Your task to perform on an android device: Show the shopping cart on walmart.com. Add logitech g pro to the cart on walmart.com, then select checkout. Image 0: 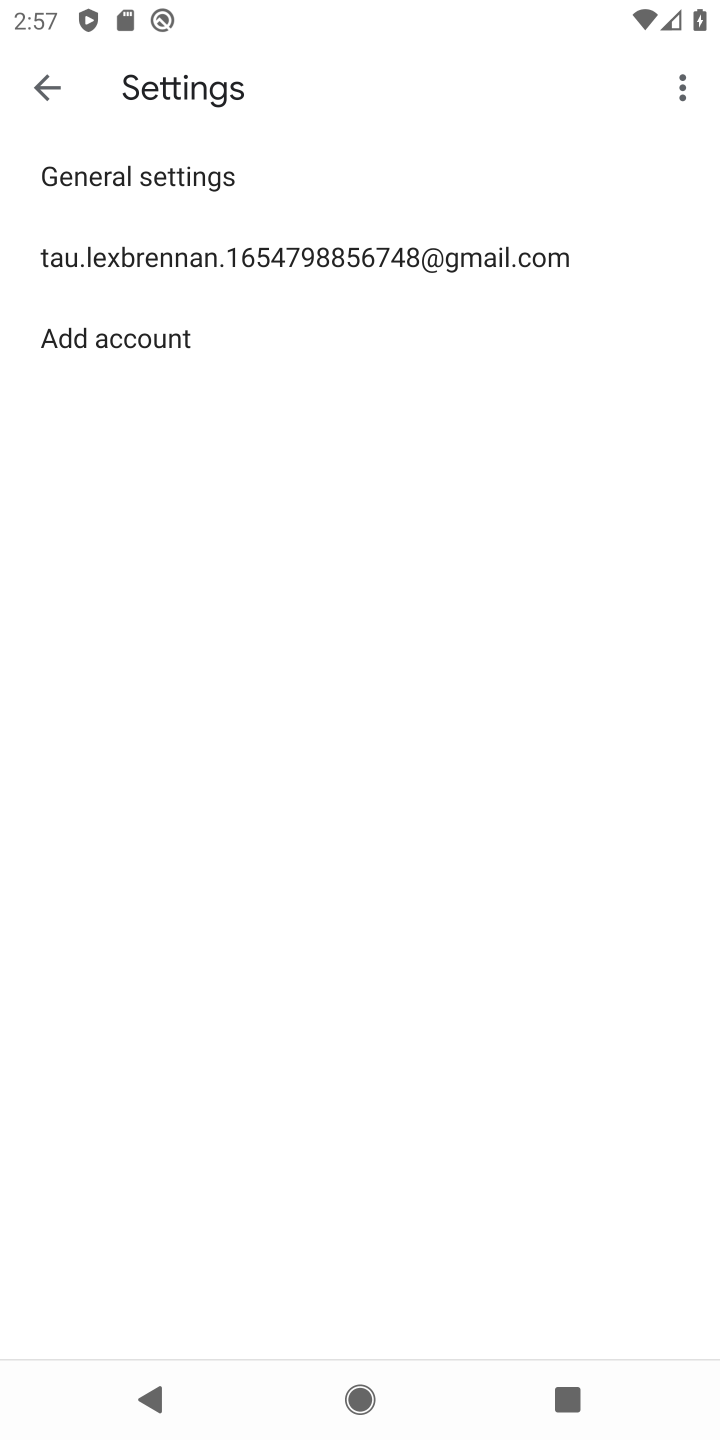
Step 0: press home button
Your task to perform on an android device: Show the shopping cart on walmart.com. Add logitech g pro to the cart on walmart.com, then select checkout. Image 1: 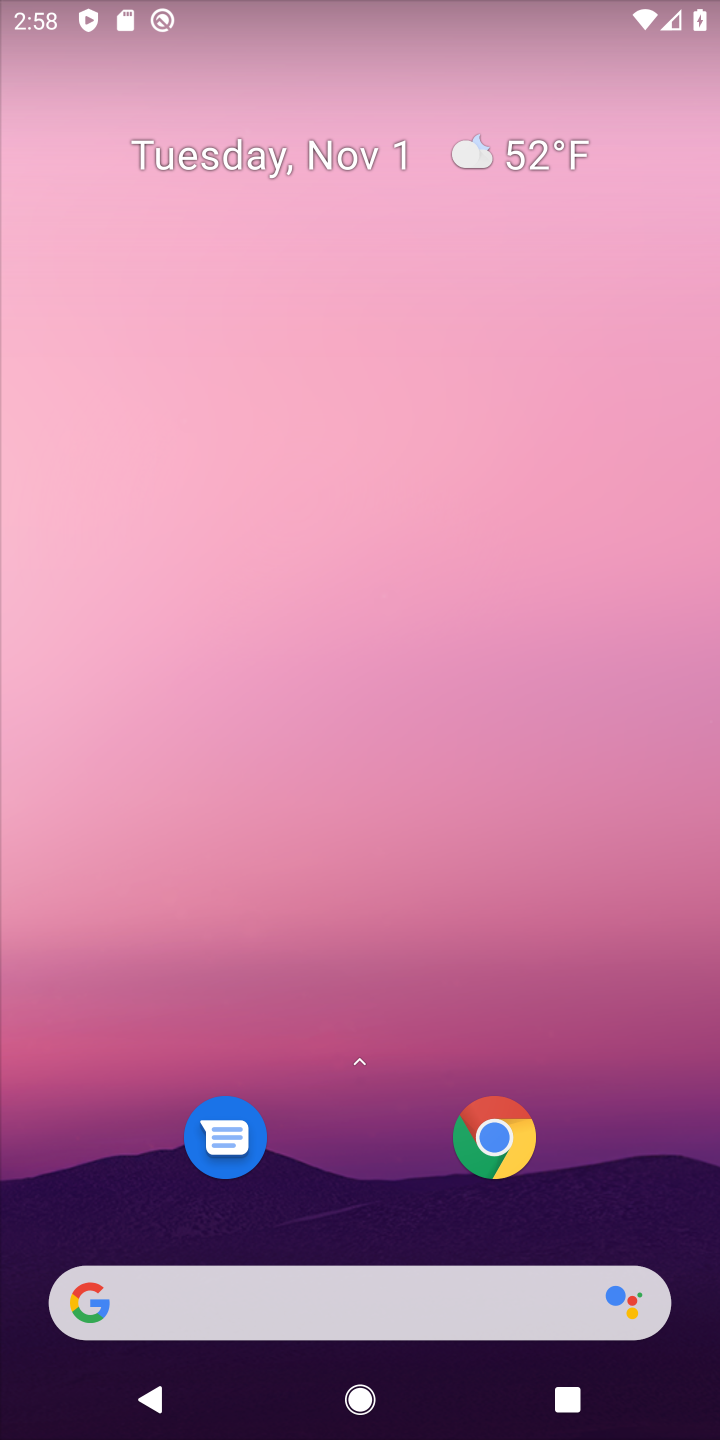
Step 1: click (516, 1297)
Your task to perform on an android device: Show the shopping cart on walmart.com. Add logitech g pro to the cart on walmart.com, then select checkout. Image 2: 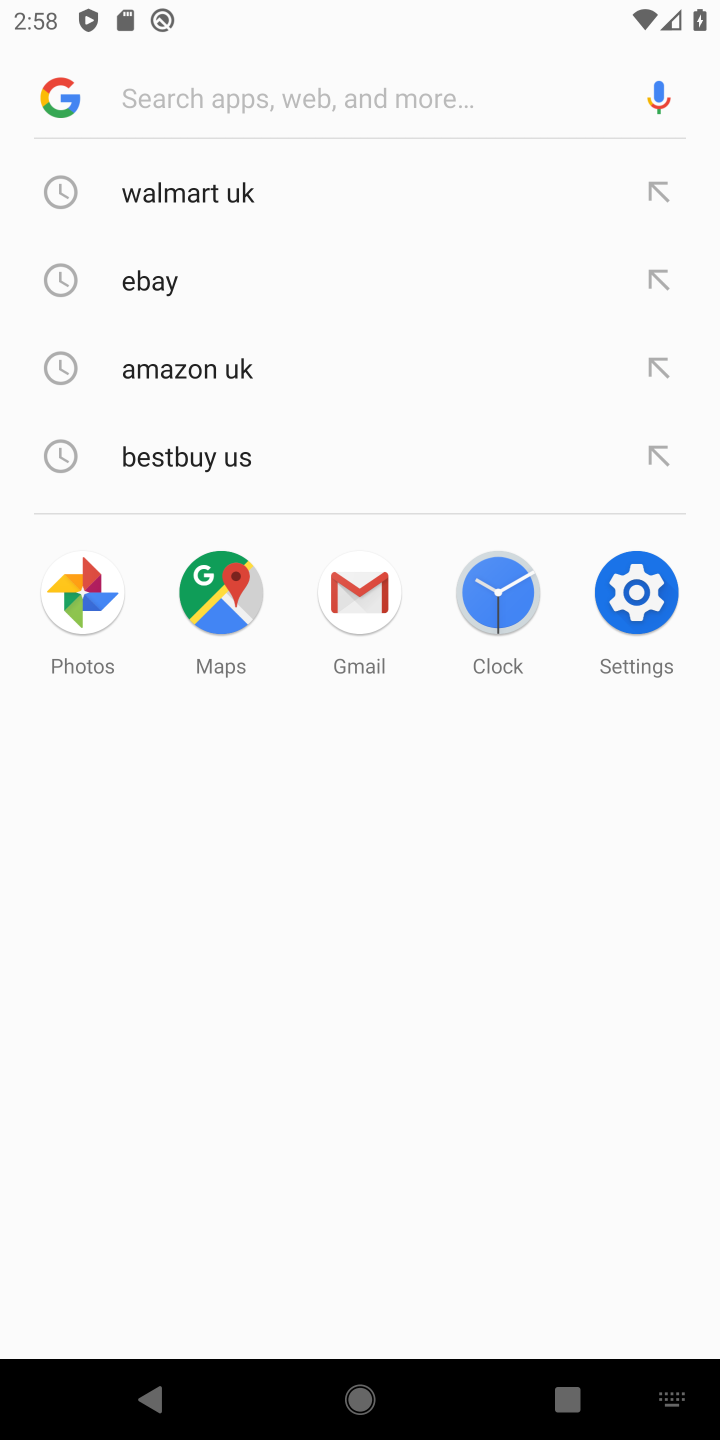
Step 2: click (343, 205)
Your task to perform on an android device: Show the shopping cart on walmart.com. Add logitech g pro to the cart on walmart.com, then select checkout. Image 3: 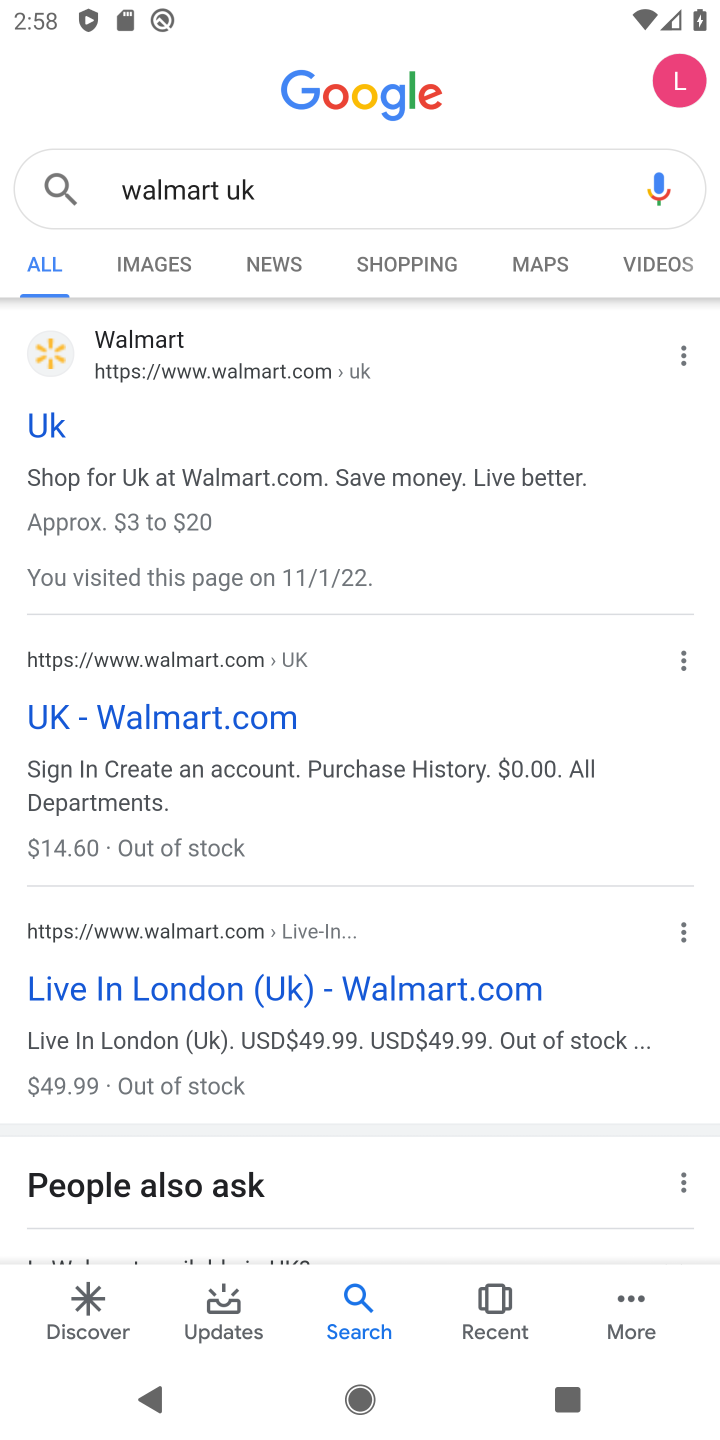
Step 3: click (58, 418)
Your task to perform on an android device: Show the shopping cart on walmart.com. Add logitech g pro to the cart on walmart.com, then select checkout. Image 4: 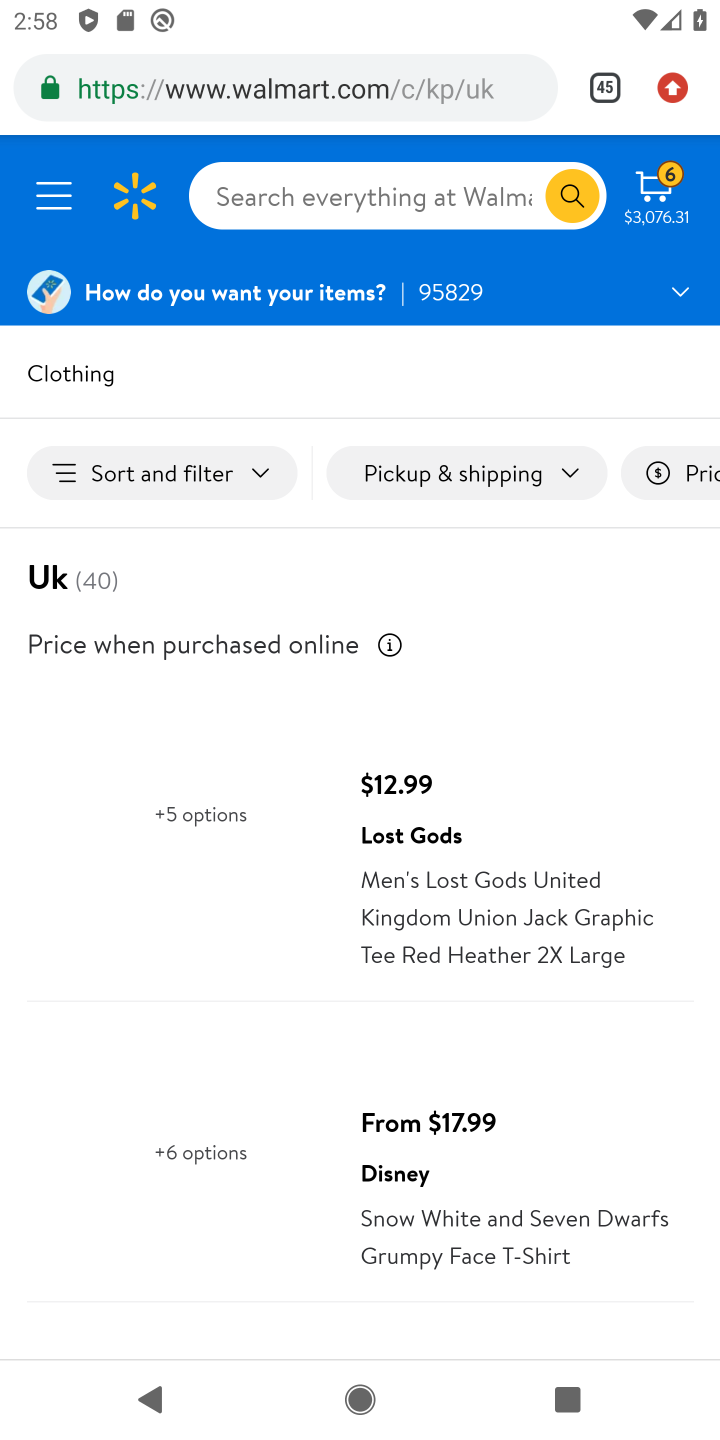
Step 4: click (316, 212)
Your task to perform on an android device: Show the shopping cart on walmart.com. Add logitech g pro to the cart on walmart.com, then select checkout. Image 5: 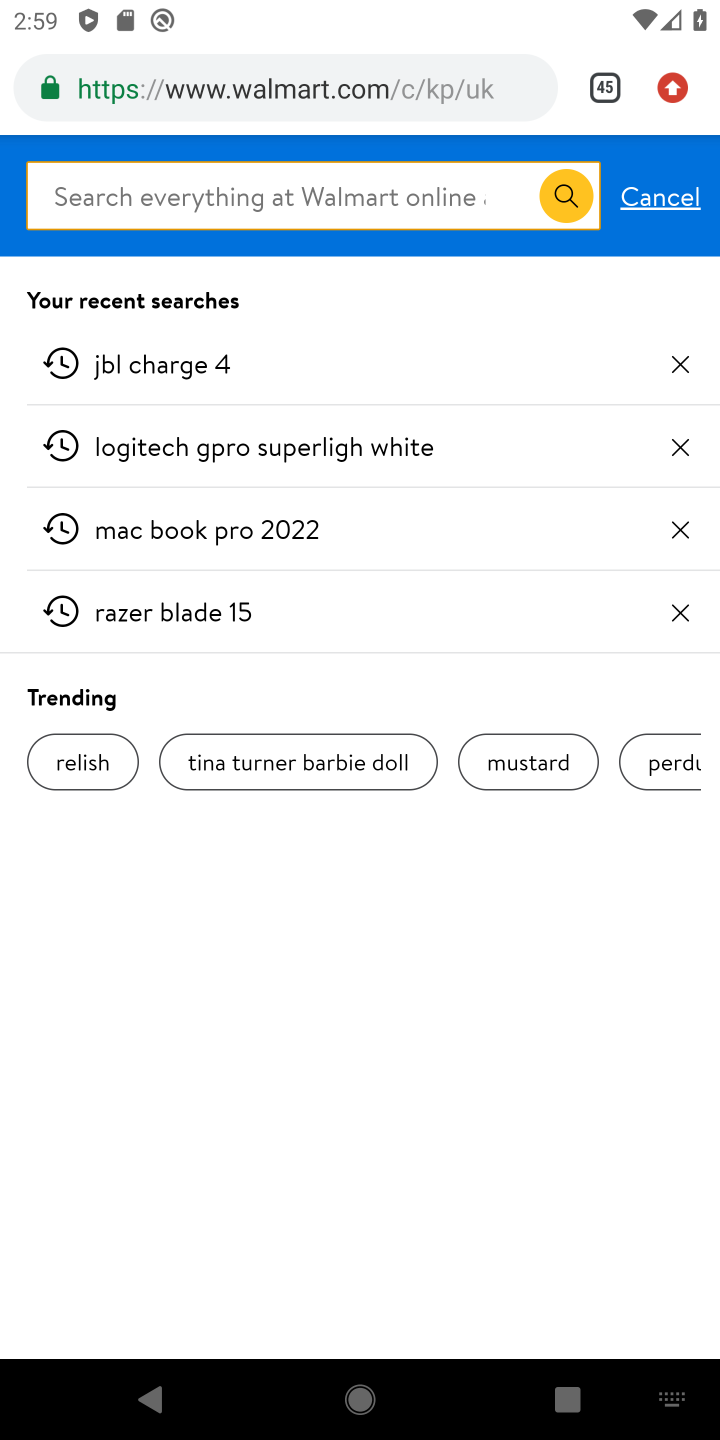
Step 5: type "logitech gpro"
Your task to perform on an android device: Show the shopping cart on walmart.com. Add logitech g pro to the cart on walmart.com, then select checkout. Image 6: 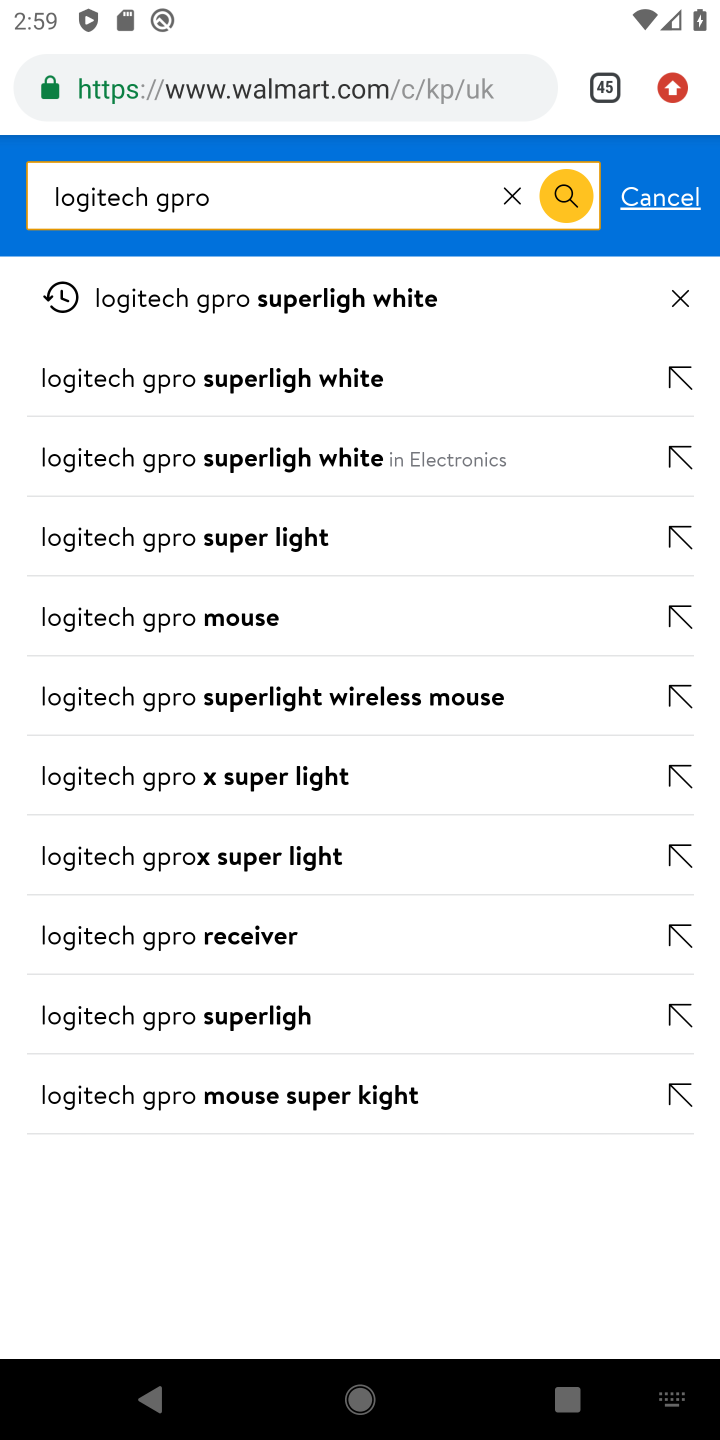
Step 6: click (298, 612)
Your task to perform on an android device: Show the shopping cart on walmart.com. Add logitech g pro to the cart on walmart.com, then select checkout. Image 7: 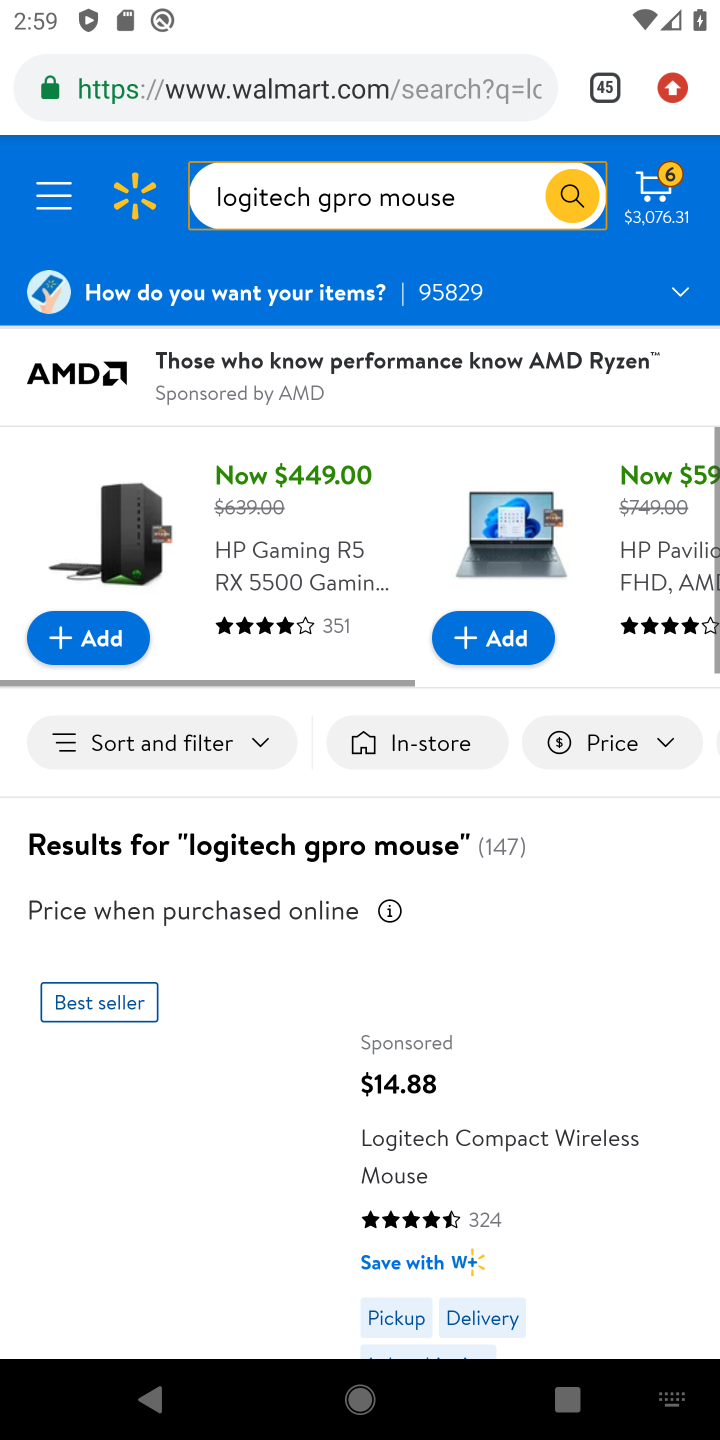
Step 7: click (508, 1076)
Your task to perform on an android device: Show the shopping cart on walmart.com. Add logitech g pro to the cart on walmart.com, then select checkout. Image 8: 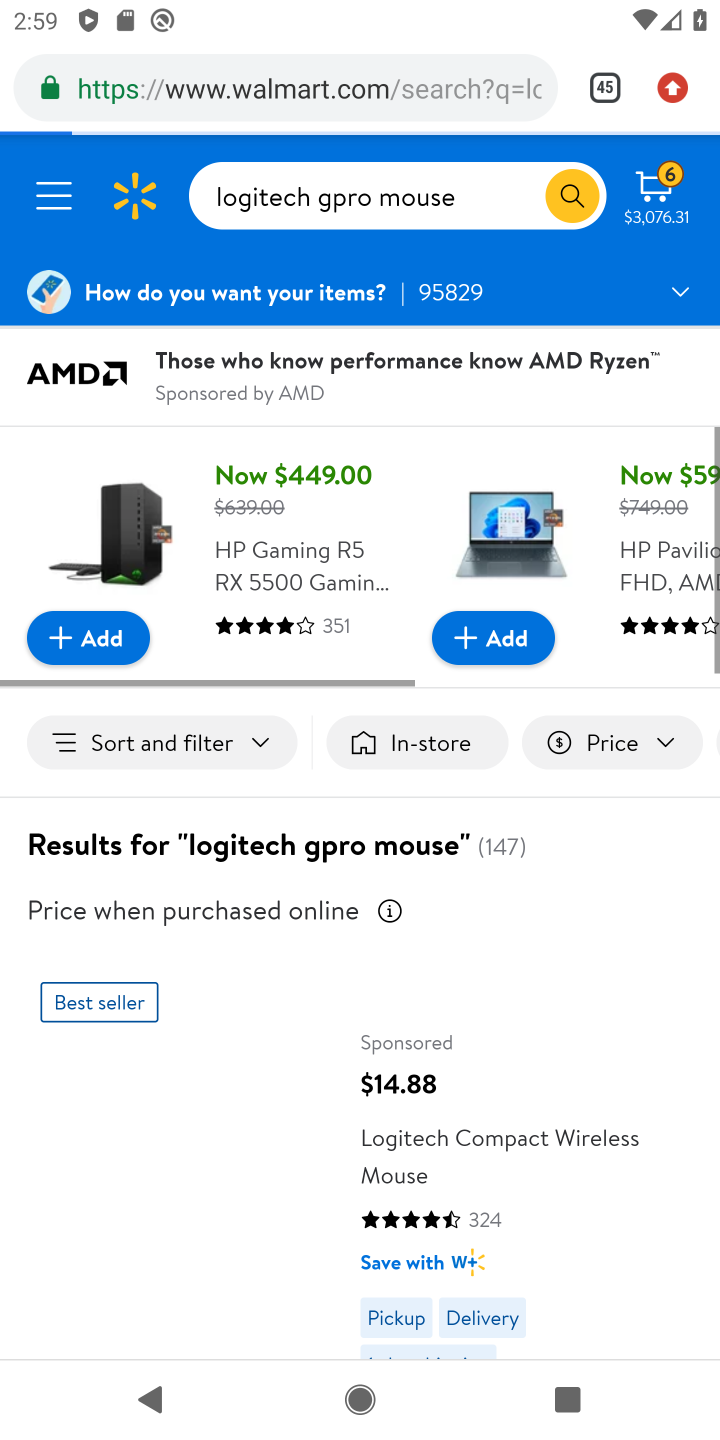
Step 8: drag from (506, 1064) to (582, 663)
Your task to perform on an android device: Show the shopping cart on walmart.com. Add logitech g pro to the cart on walmart.com, then select checkout. Image 9: 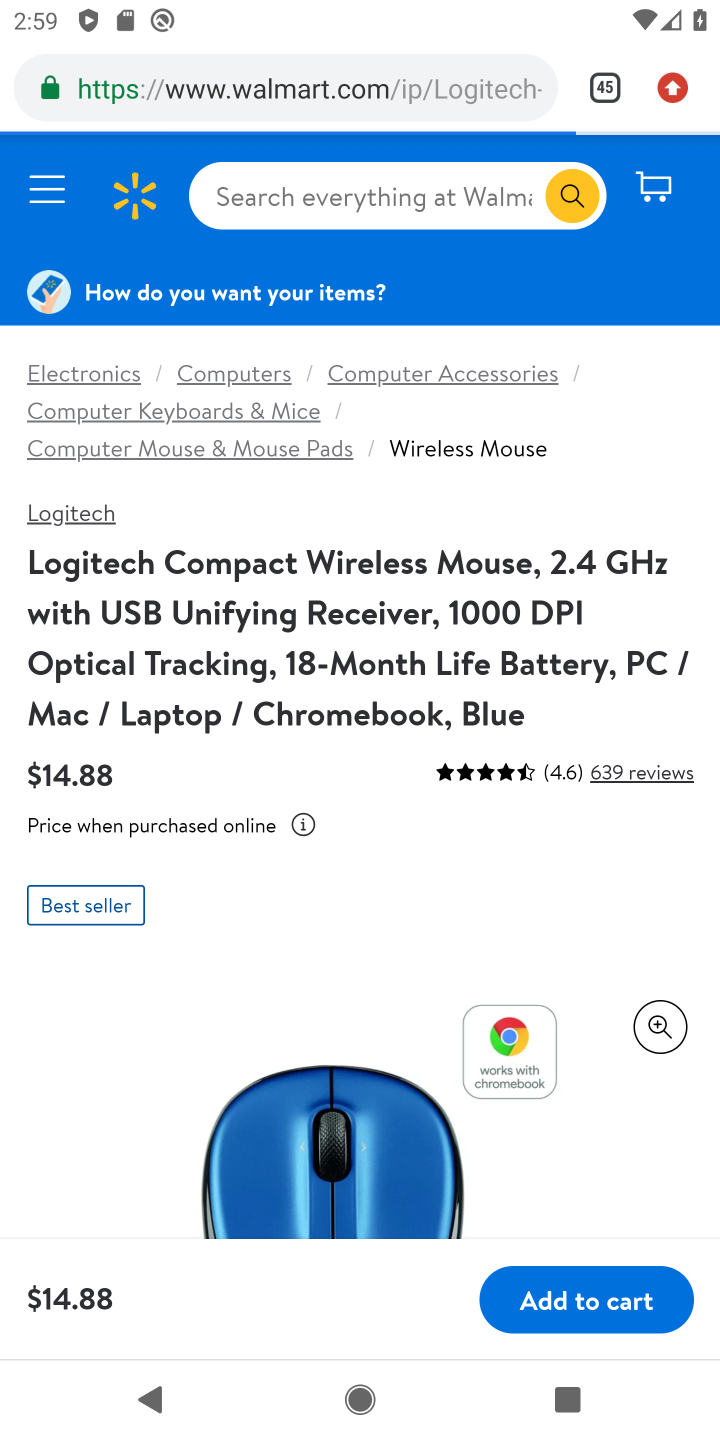
Step 9: click (587, 1317)
Your task to perform on an android device: Show the shopping cart on walmart.com. Add logitech g pro to the cart on walmart.com, then select checkout. Image 10: 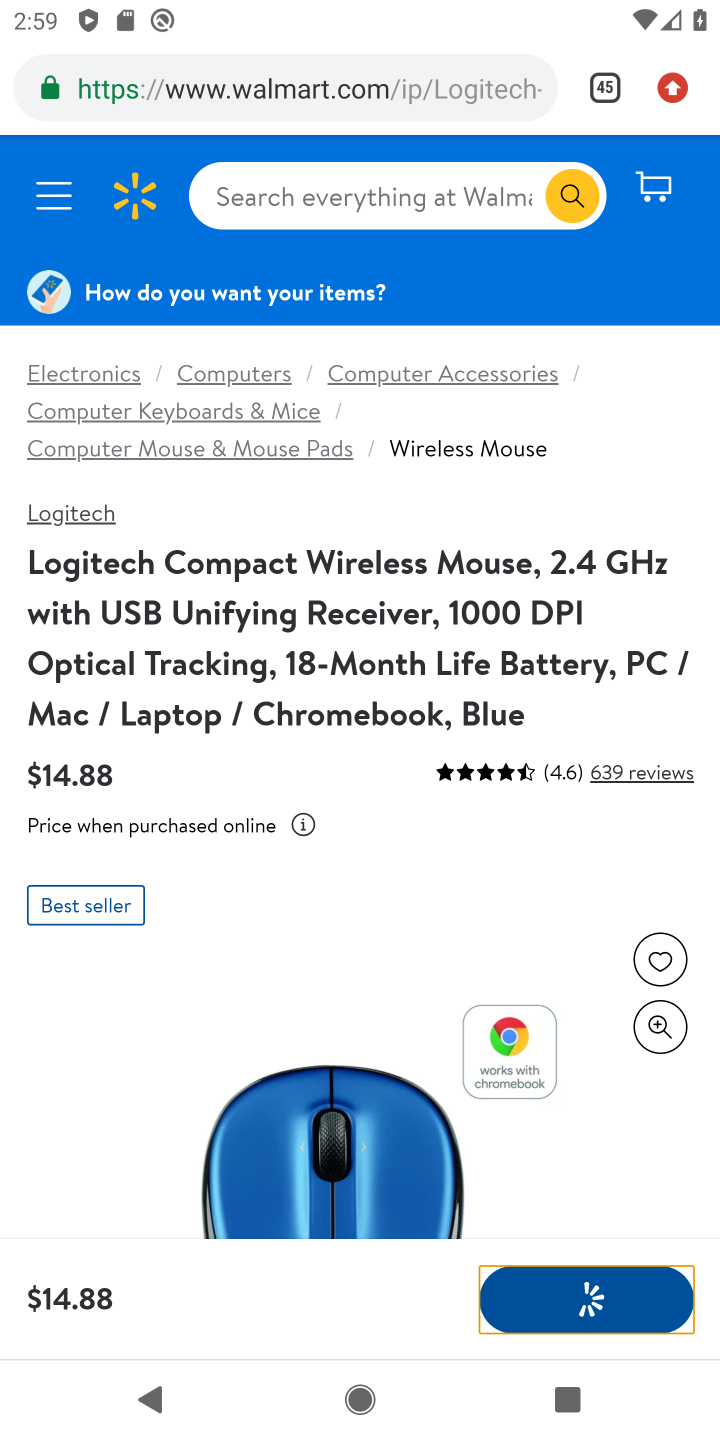
Step 10: task complete